Your task to perform on an android device: uninstall "Pinterest" Image 0: 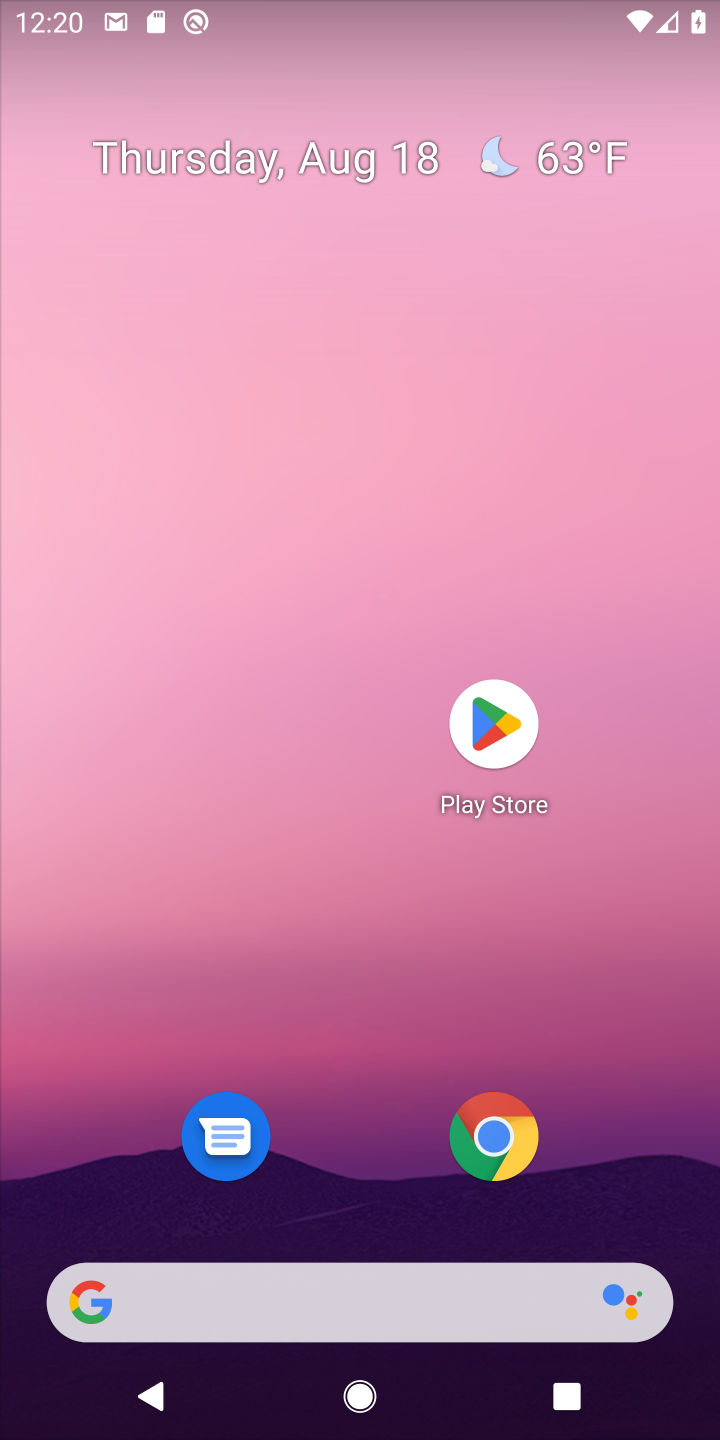
Step 0: press home button
Your task to perform on an android device: uninstall "Pinterest" Image 1: 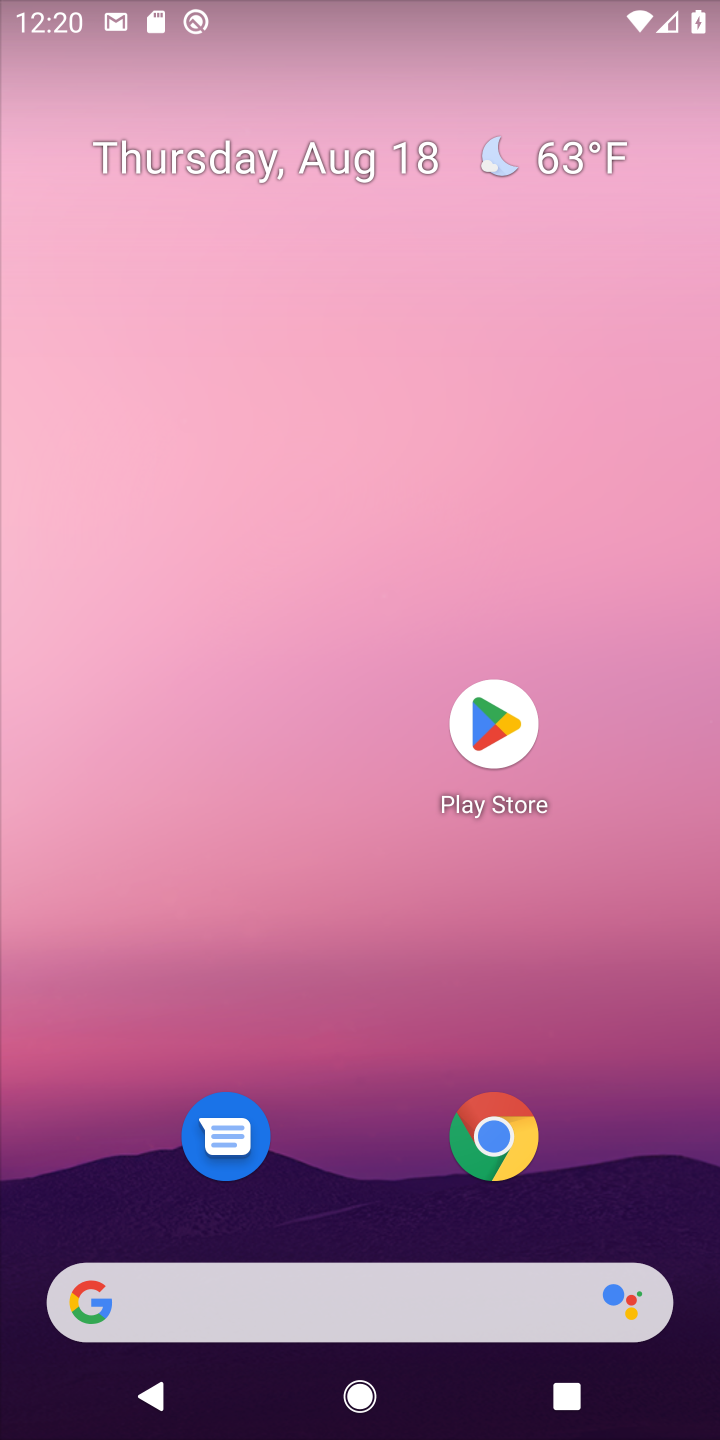
Step 1: click (494, 715)
Your task to perform on an android device: uninstall "Pinterest" Image 2: 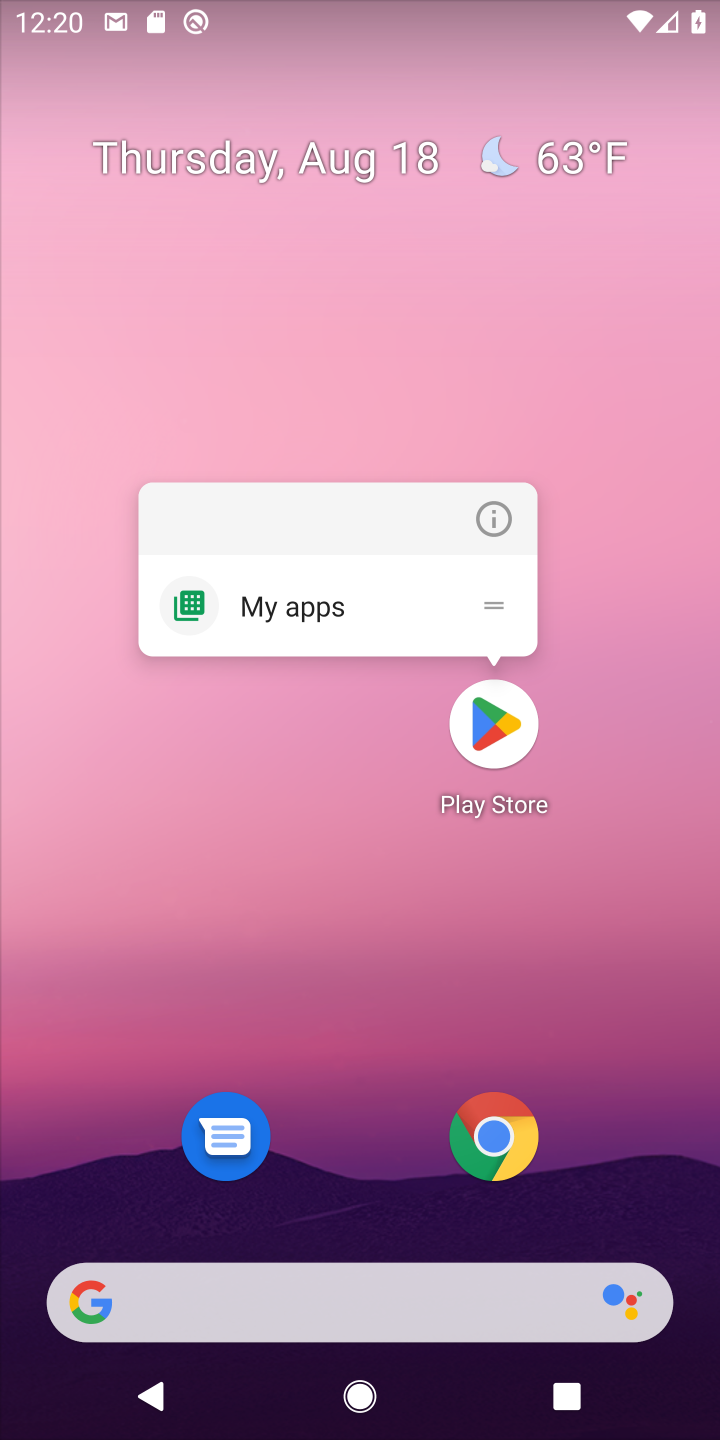
Step 2: click (494, 718)
Your task to perform on an android device: uninstall "Pinterest" Image 3: 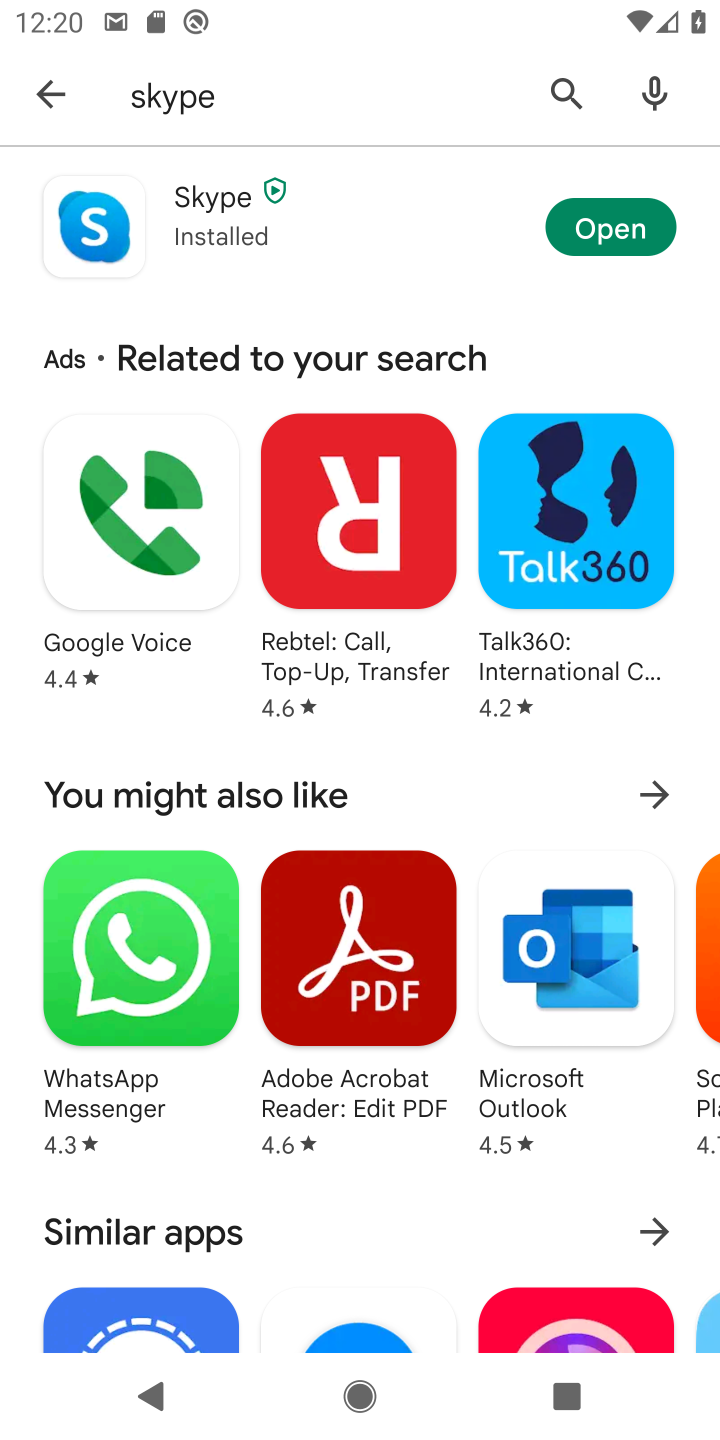
Step 3: click (563, 97)
Your task to perform on an android device: uninstall "Pinterest" Image 4: 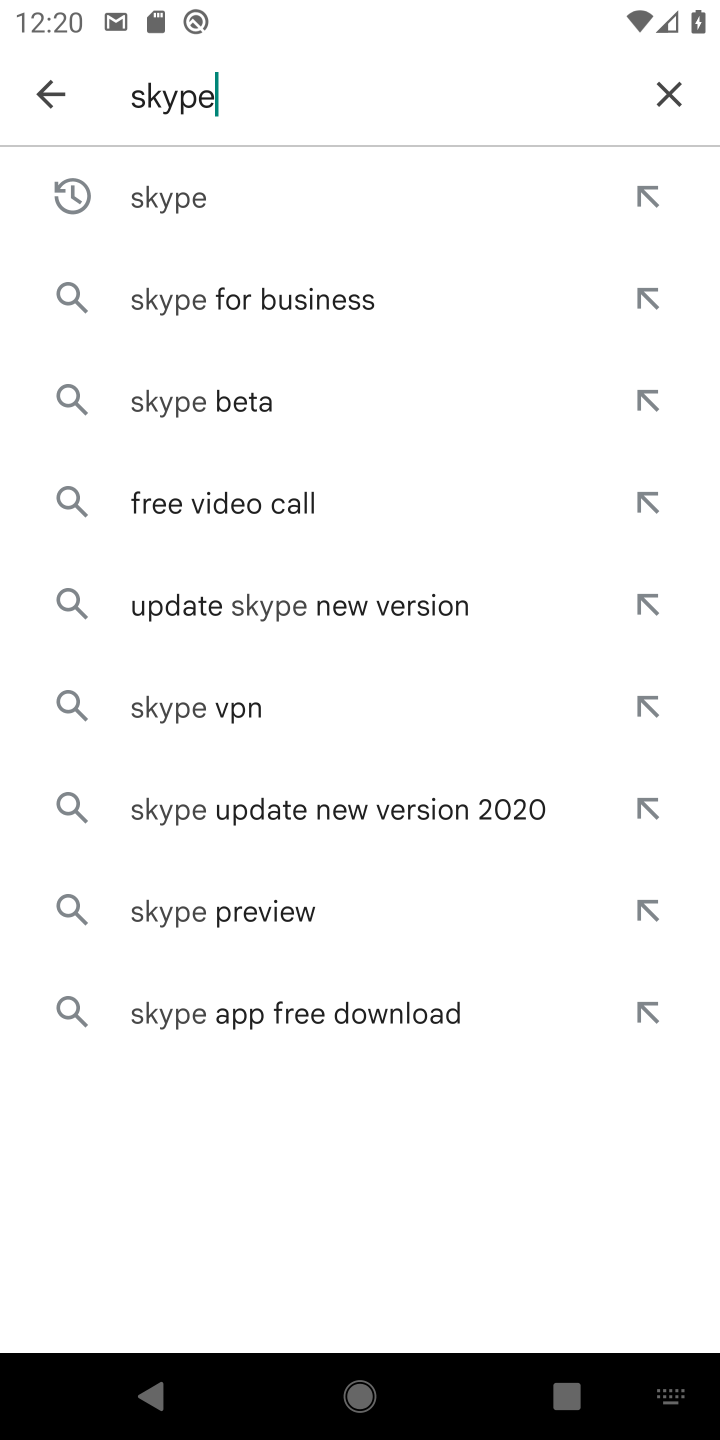
Step 4: click (670, 103)
Your task to perform on an android device: uninstall "Pinterest" Image 5: 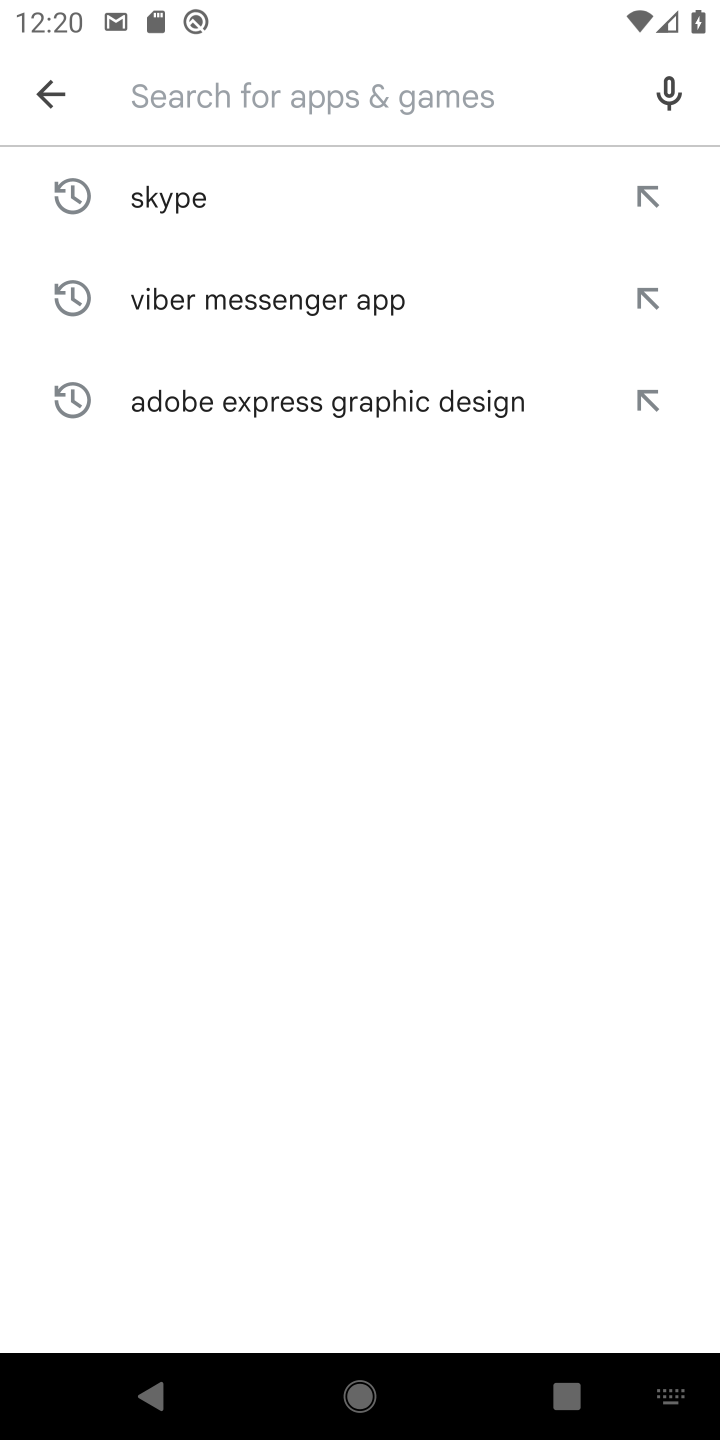
Step 5: type "Pinterest"
Your task to perform on an android device: uninstall "Pinterest" Image 6: 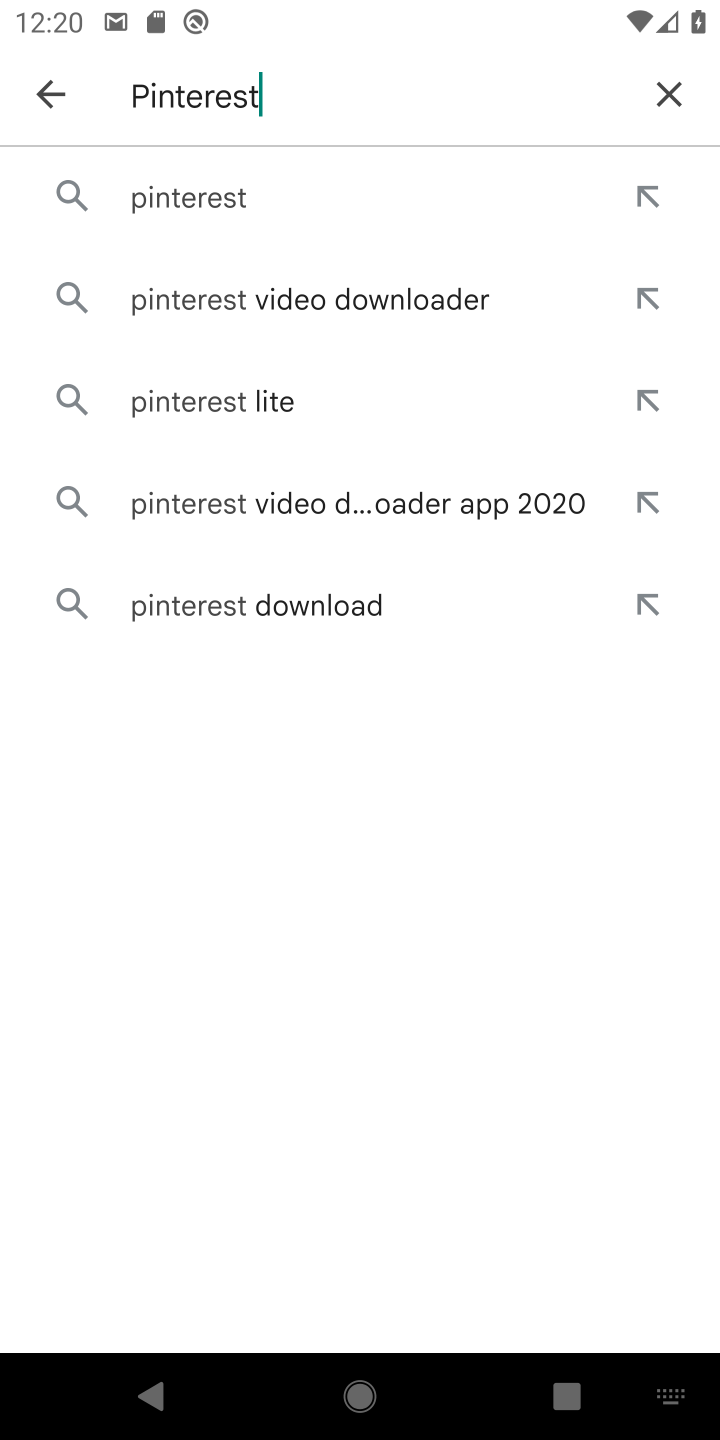
Step 6: click (174, 194)
Your task to perform on an android device: uninstall "Pinterest" Image 7: 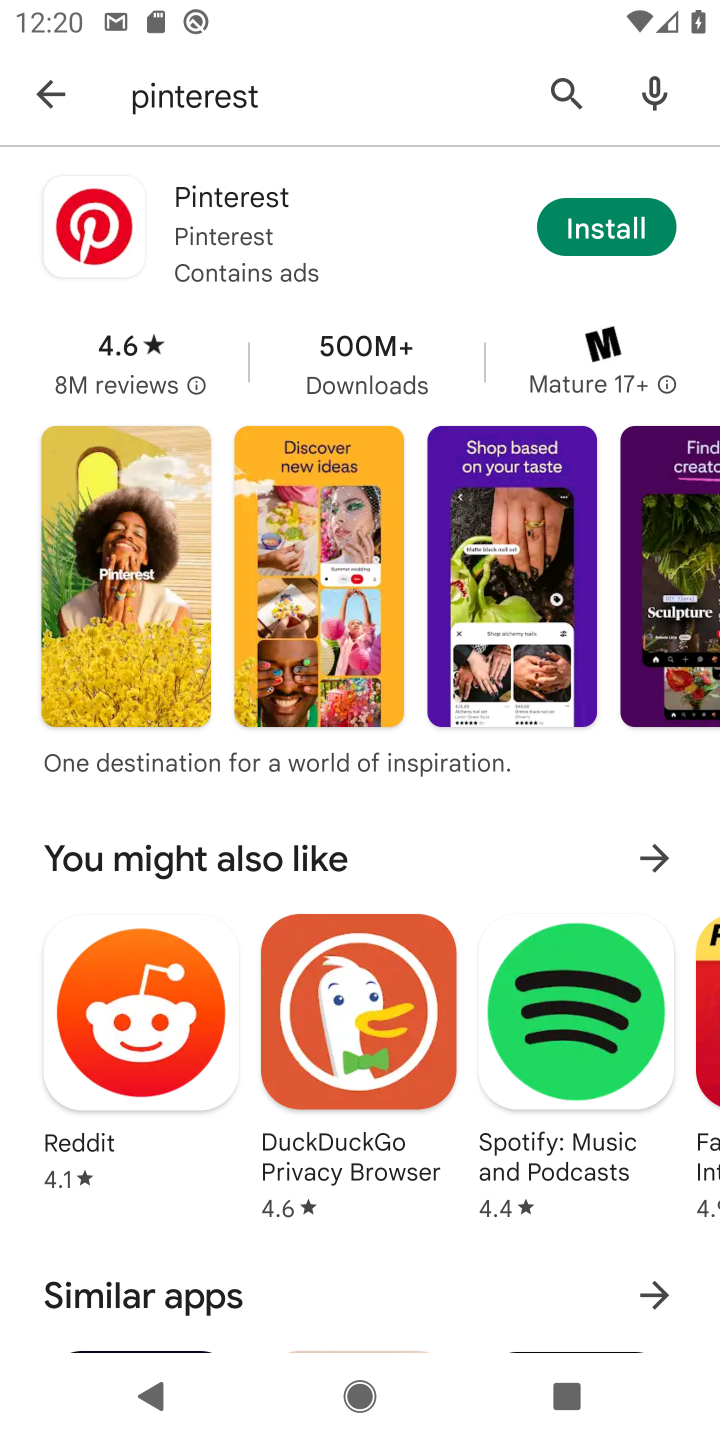
Step 7: task complete